Your task to perform on an android device: What's the weather going to be tomorrow? Image 0: 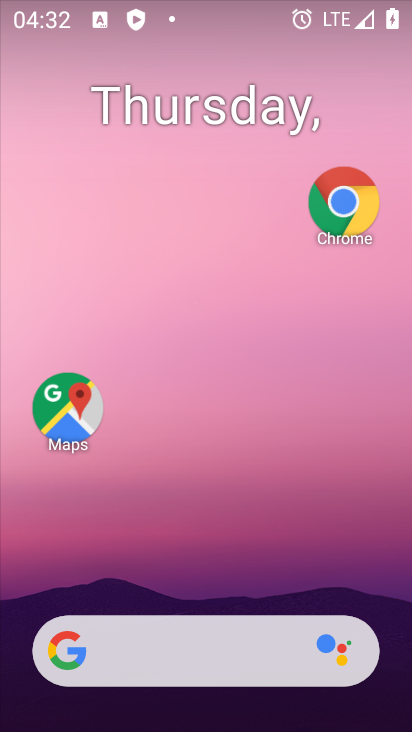
Step 0: drag from (242, 593) to (222, 0)
Your task to perform on an android device: What's the weather going to be tomorrow? Image 1: 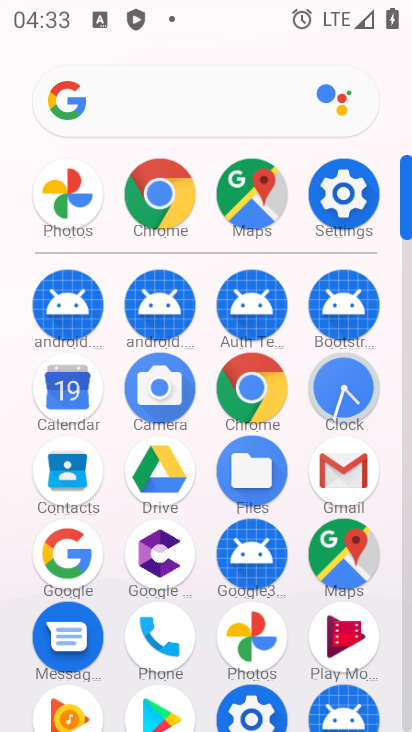
Step 1: press home button
Your task to perform on an android device: What's the weather going to be tomorrow? Image 2: 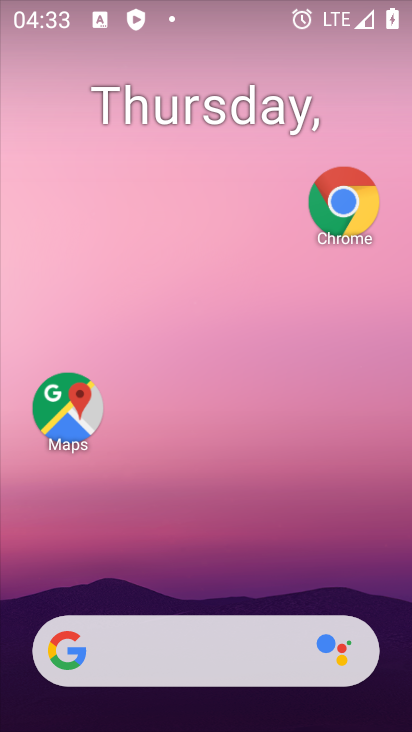
Step 2: drag from (28, 252) to (394, 362)
Your task to perform on an android device: What's the weather going to be tomorrow? Image 3: 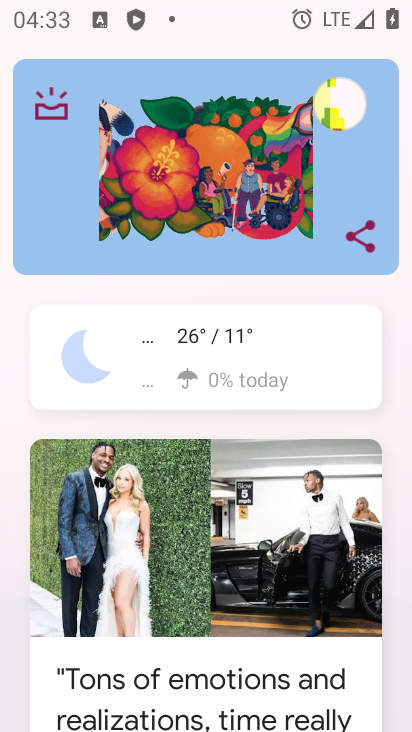
Step 3: click (168, 346)
Your task to perform on an android device: What's the weather going to be tomorrow? Image 4: 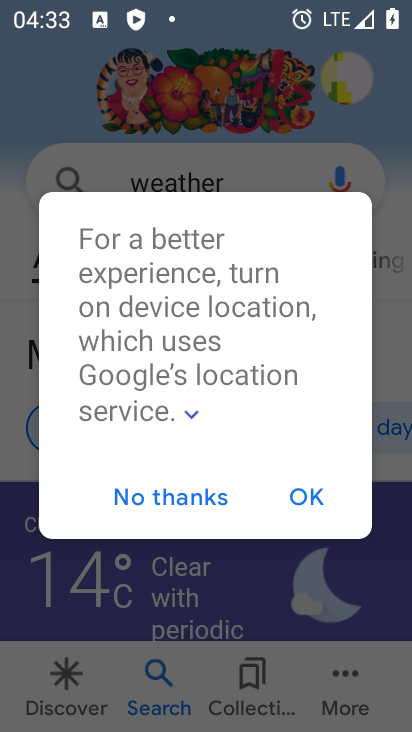
Step 4: click (196, 505)
Your task to perform on an android device: What's the weather going to be tomorrow? Image 5: 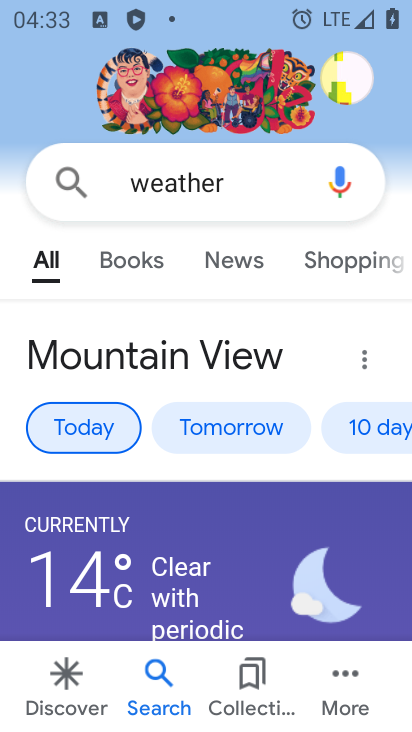
Step 5: drag from (292, 574) to (323, 309)
Your task to perform on an android device: What's the weather going to be tomorrow? Image 6: 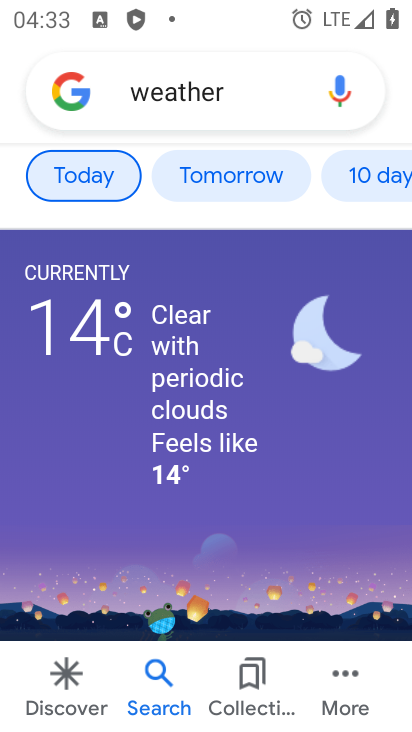
Step 6: click (262, 182)
Your task to perform on an android device: What's the weather going to be tomorrow? Image 7: 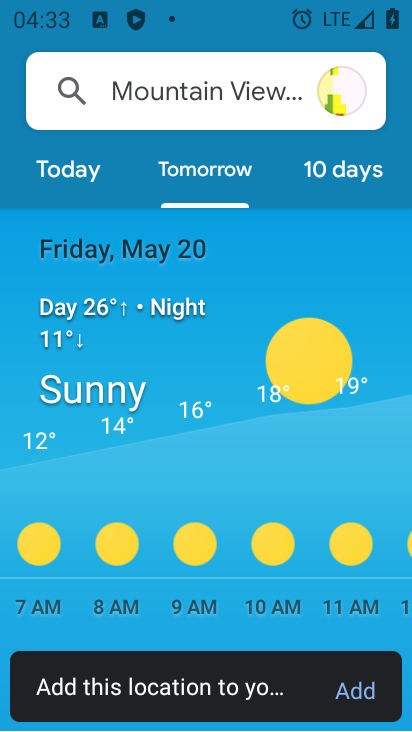
Step 7: task complete